Your task to perform on an android device: Search for vegetarian restaurants on Maps Image 0: 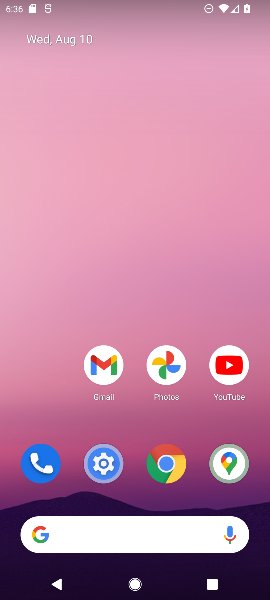
Step 0: click (228, 461)
Your task to perform on an android device: Search for vegetarian restaurants on Maps Image 1: 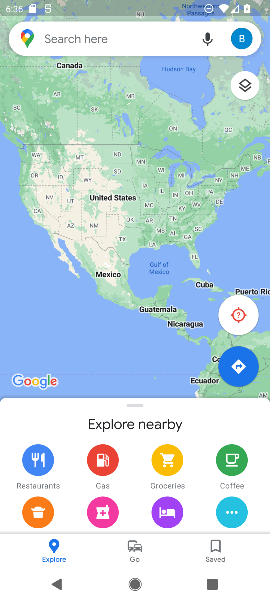
Step 1: click (118, 37)
Your task to perform on an android device: Search for vegetarian restaurants on Maps Image 2: 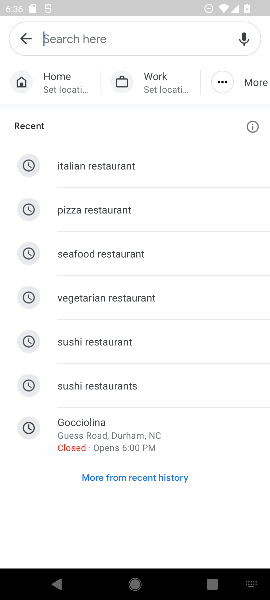
Step 2: click (107, 293)
Your task to perform on an android device: Search for vegetarian restaurants on Maps Image 3: 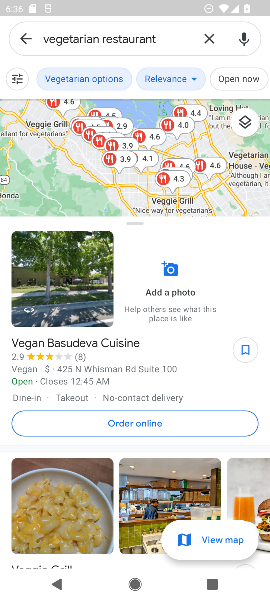
Step 3: task complete